Your task to perform on an android device: Go to internet settings Image 0: 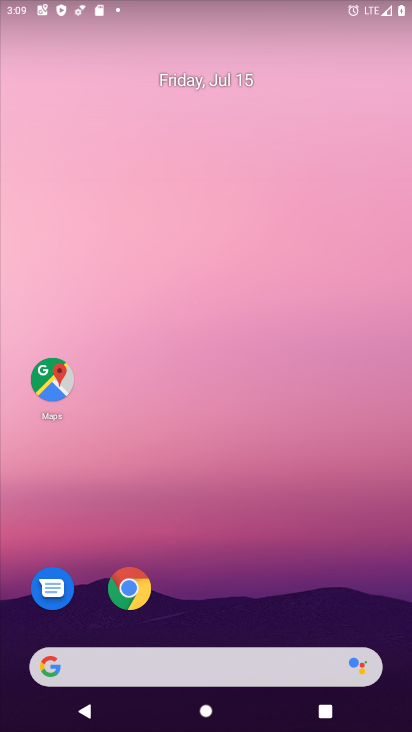
Step 0: drag from (172, 669) to (193, 154)
Your task to perform on an android device: Go to internet settings Image 1: 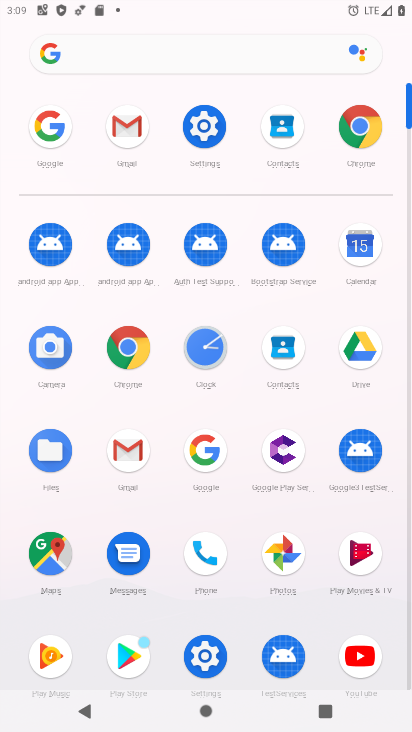
Step 1: click (204, 126)
Your task to perform on an android device: Go to internet settings Image 2: 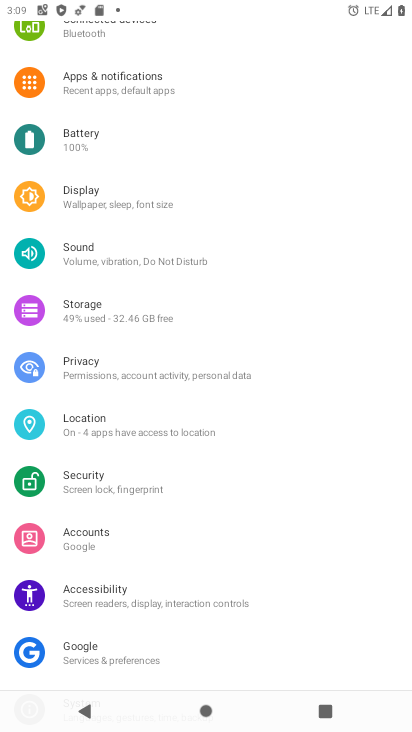
Step 2: drag from (204, 126) to (166, 385)
Your task to perform on an android device: Go to internet settings Image 3: 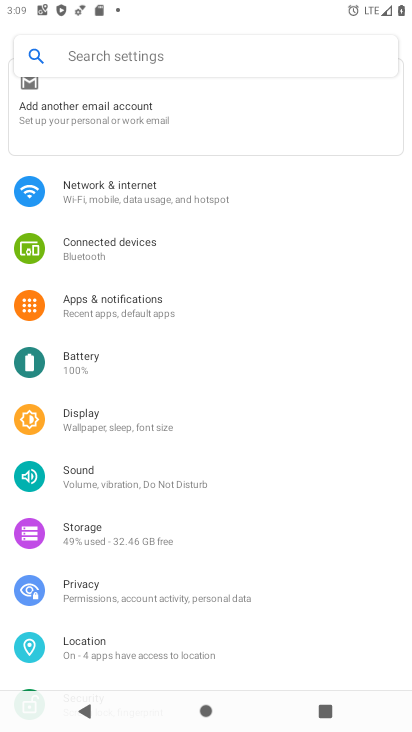
Step 3: click (149, 197)
Your task to perform on an android device: Go to internet settings Image 4: 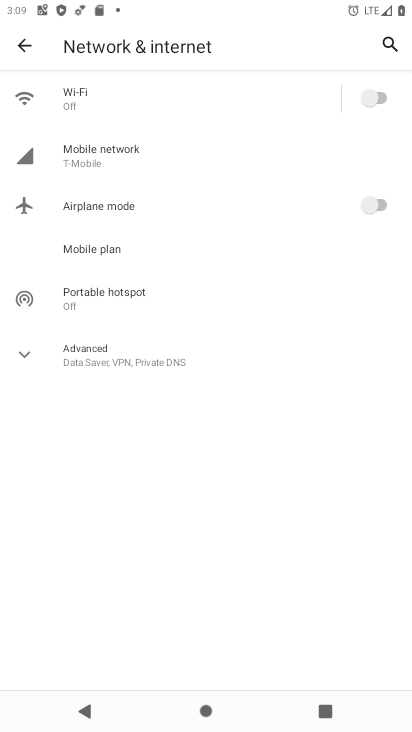
Step 4: task complete